Your task to perform on an android device: check data usage Image 0: 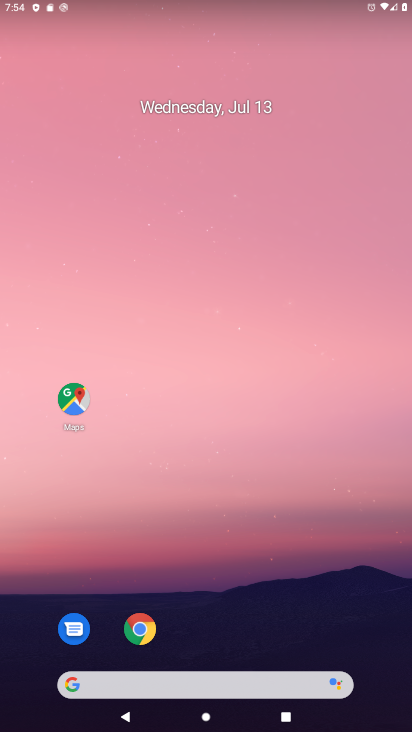
Step 0: drag from (257, 570) to (405, 108)
Your task to perform on an android device: check data usage Image 1: 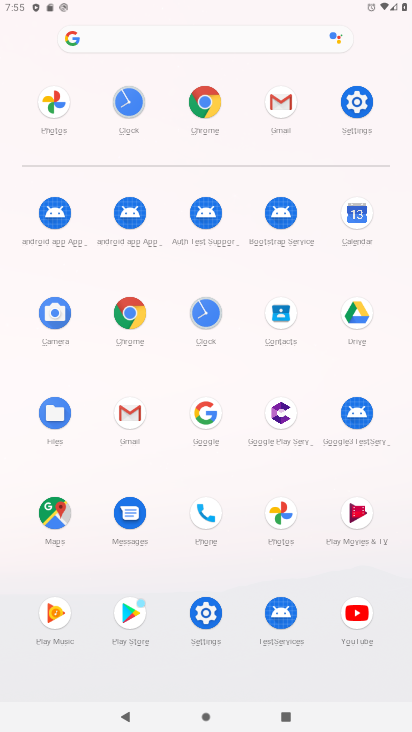
Step 1: click (343, 103)
Your task to perform on an android device: check data usage Image 2: 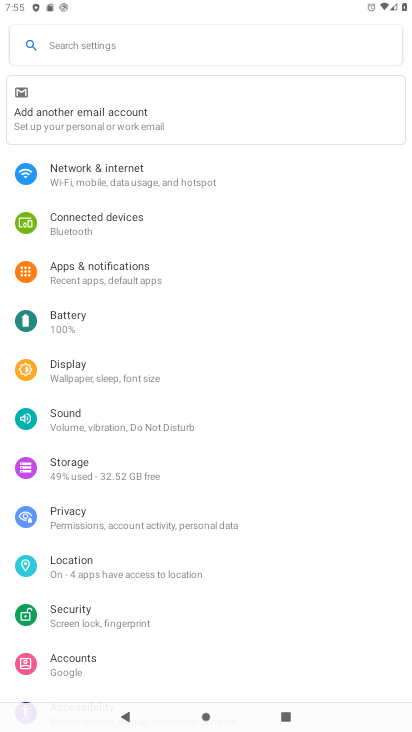
Step 2: click (83, 188)
Your task to perform on an android device: check data usage Image 3: 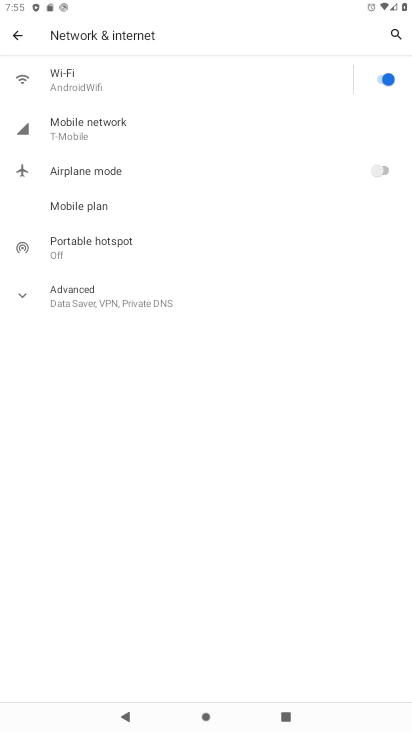
Step 3: click (100, 128)
Your task to perform on an android device: check data usage Image 4: 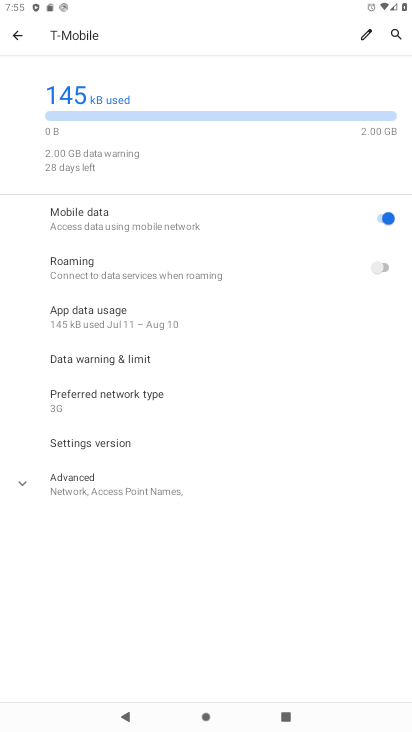
Step 4: task complete